Your task to perform on an android device: Add logitech g910 to the cart on ebay Image 0: 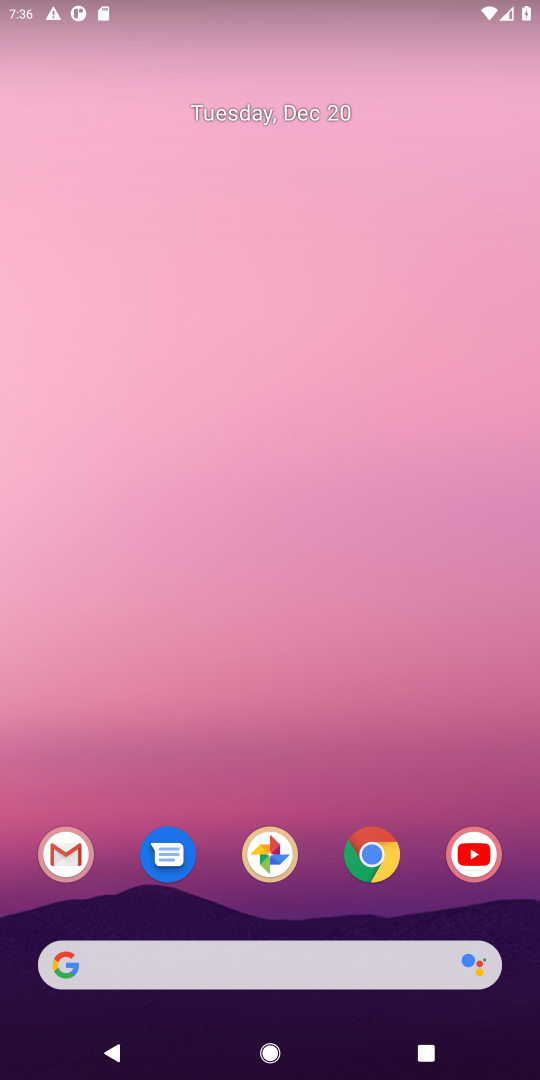
Step 0: click (376, 857)
Your task to perform on an android device: Add logitech g910 to the cart on ebay Image 1: 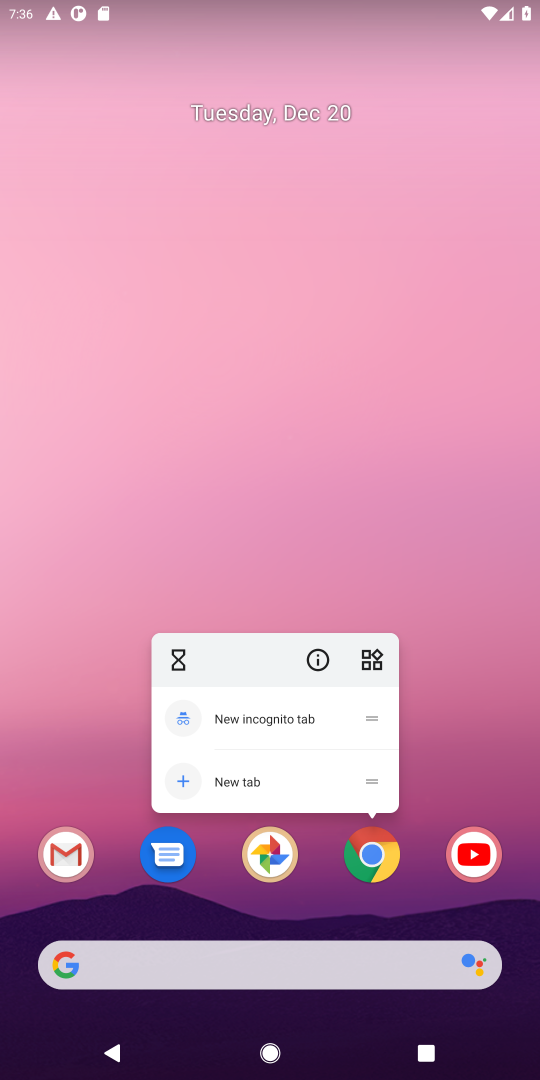
Step 1: click (373, 863)
Your task to perform on an android device: Add logitech g910 to the cart on ebay Image 2: 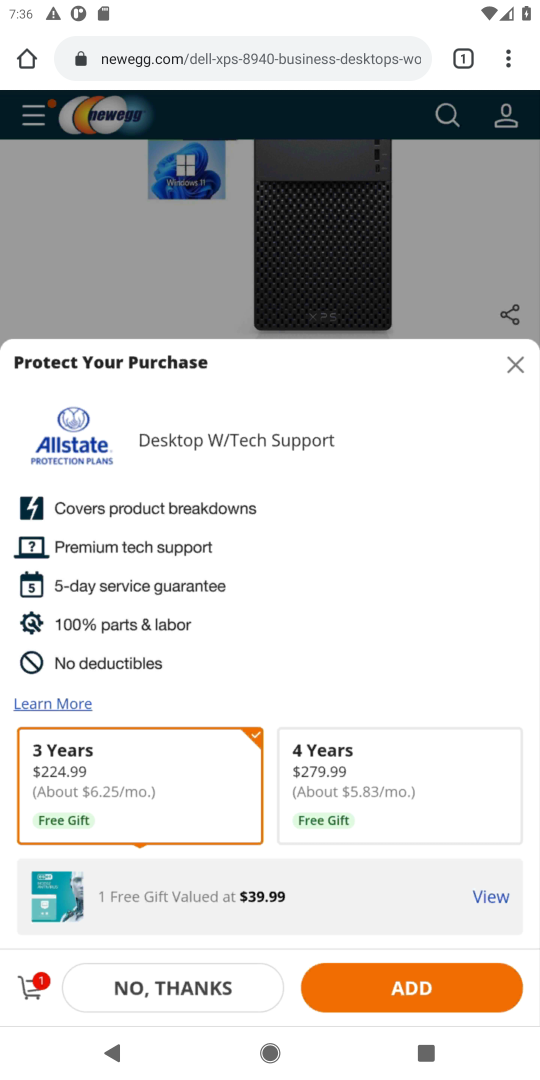
Step 2: click (205, 54)
Your task to perform on an android device: Add logitech g910 to the cart on ebay Image 3: 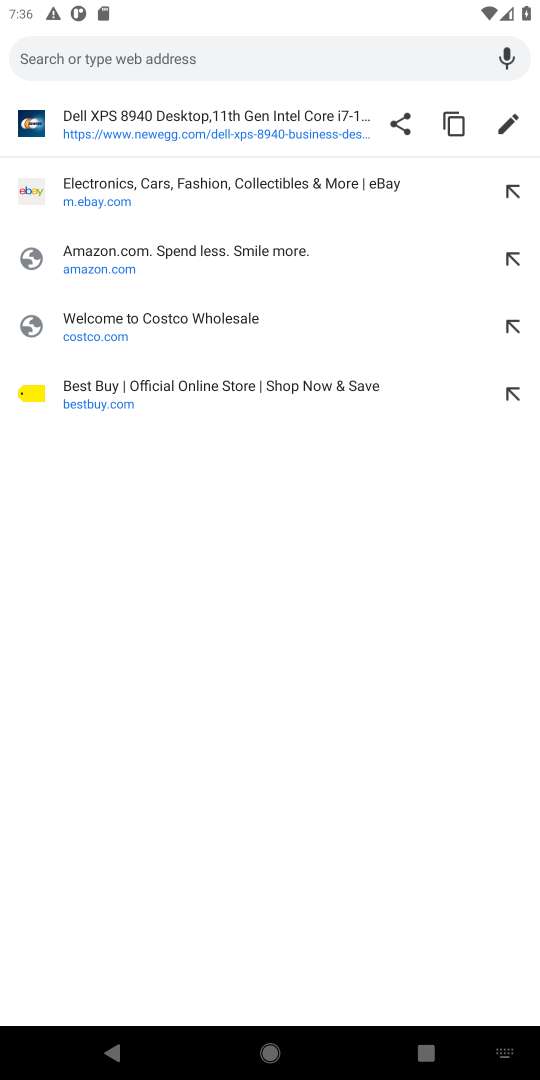
Step 3: click (72, 201)
Your task to perform on an android device: Add logitech g910 to the cart on ebay Image 4: 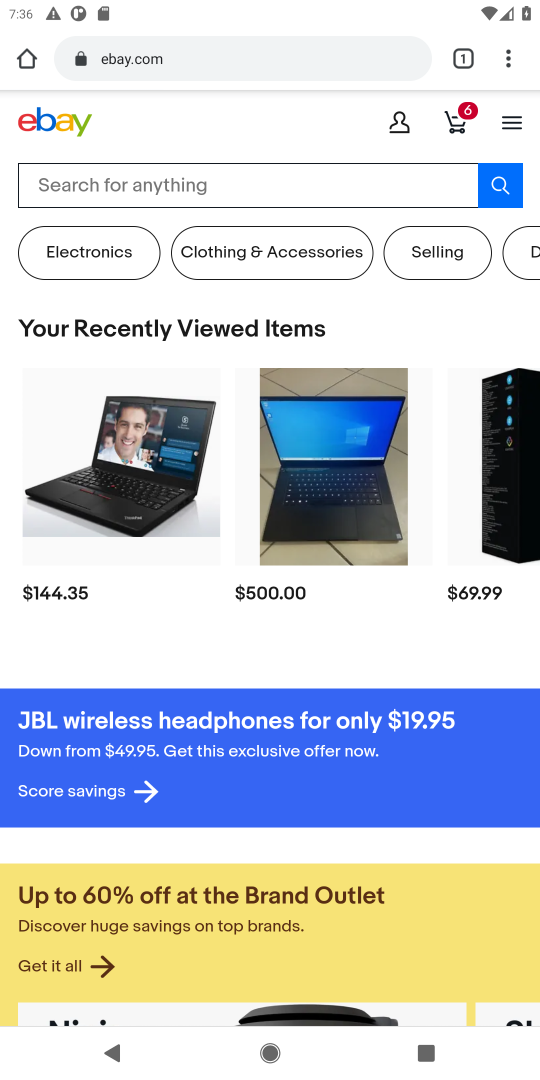
Step 4: click (71, 187)
Your task to perform on an android device: Add logitech g910 to the cart on ebay Image 5: 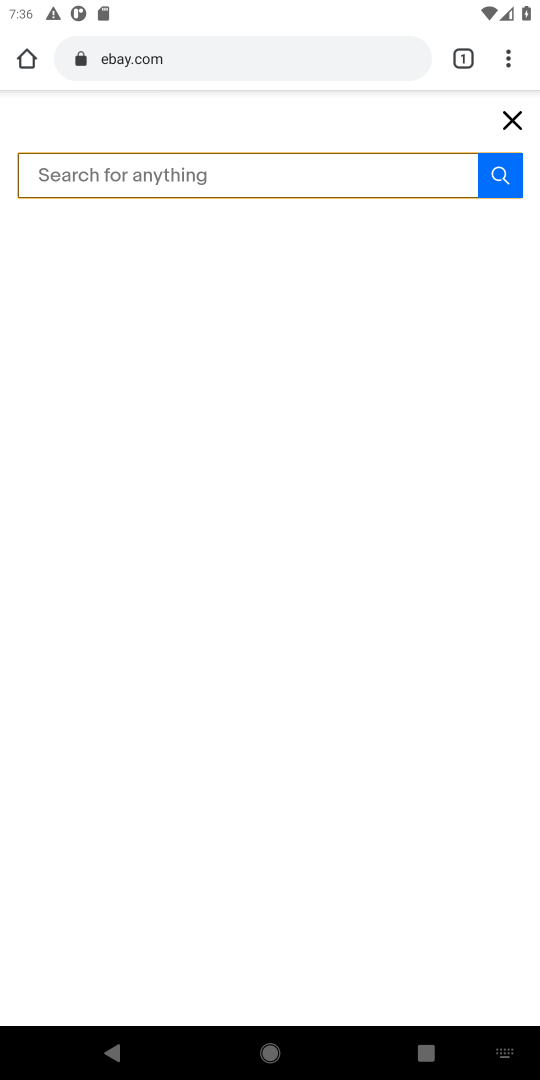
Step 5: type " logitech g910 "
Your task to perform on an android device: Add logitech g910 to the cart on ebay Image 6: 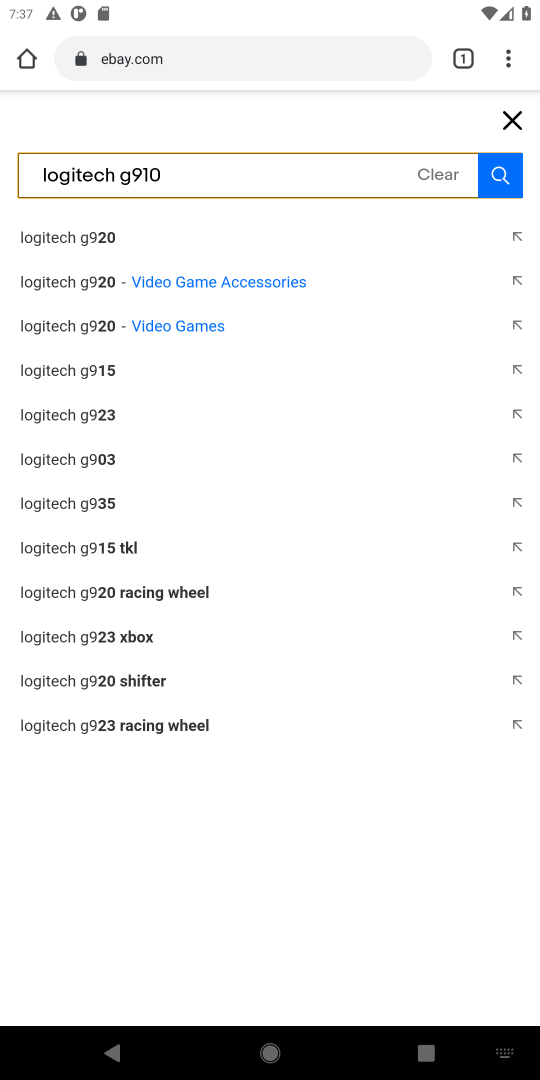
Step 6: click (500, 176)
Your task to perform on an android device: Add logitech g910 to the cart on ebay Image 7: 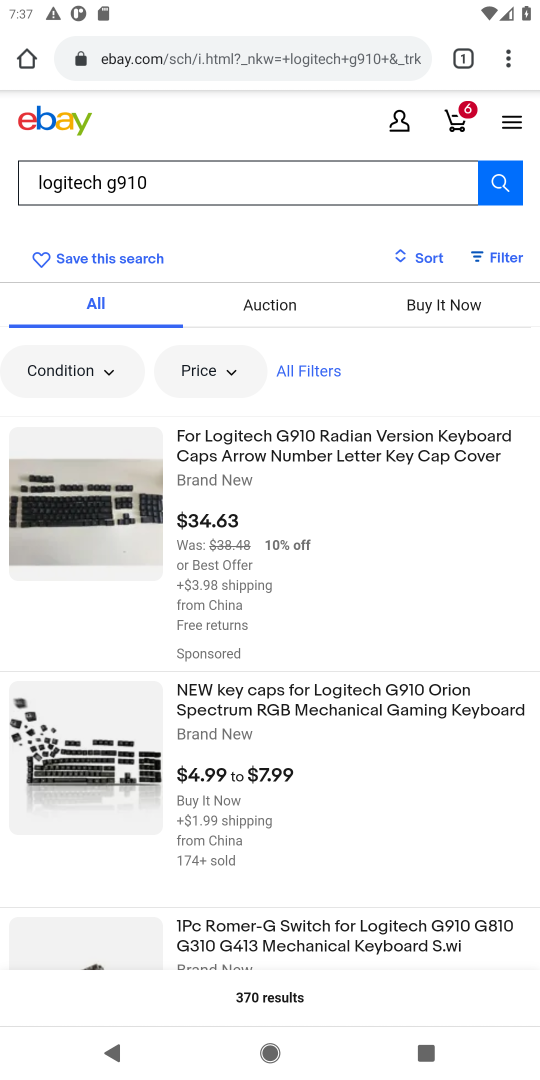
Step 7: click (222, 464)
Your task to perform on an android device: Add logitech g910 to the cart on ebay Image 8: 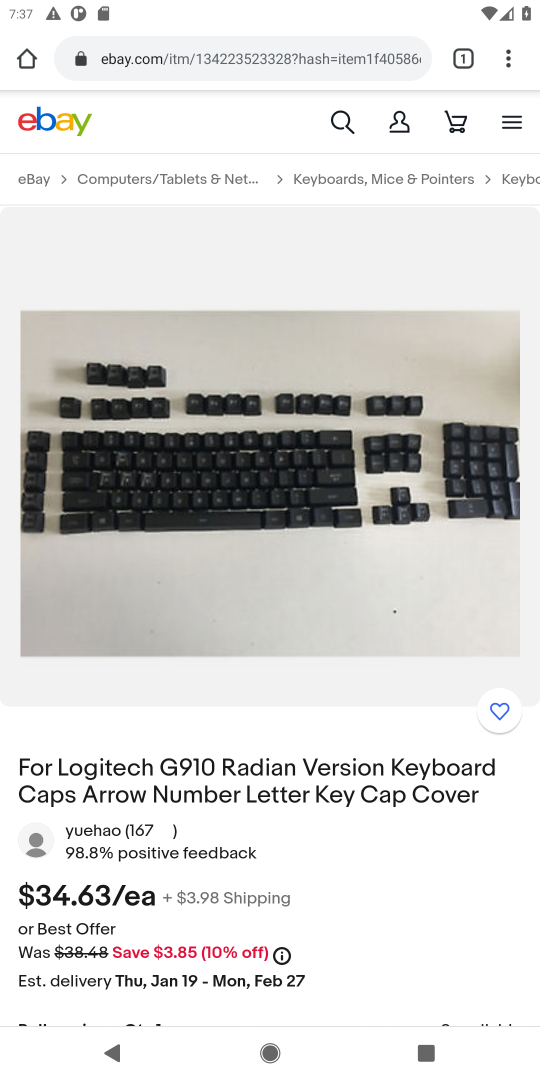
Step 8: drag from (273, 750) to (209, 372)
Your task to perform on an android device: Add logitech g910 to the cart on ebay Image 9: 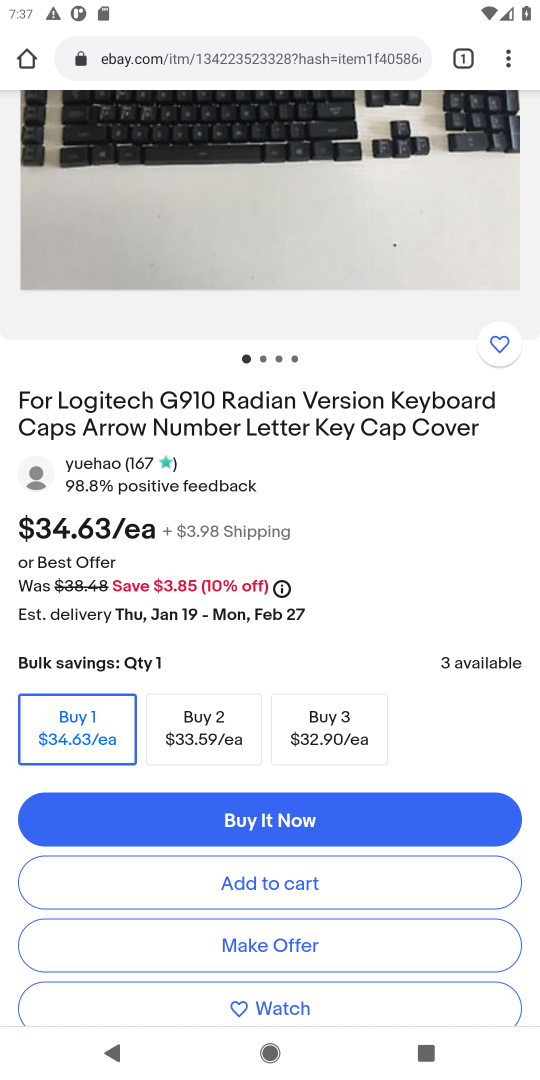
Step 9: click (225, 881)
Your task to perform on an android device: Add logitech g910 to the cart on ebay Image 10: 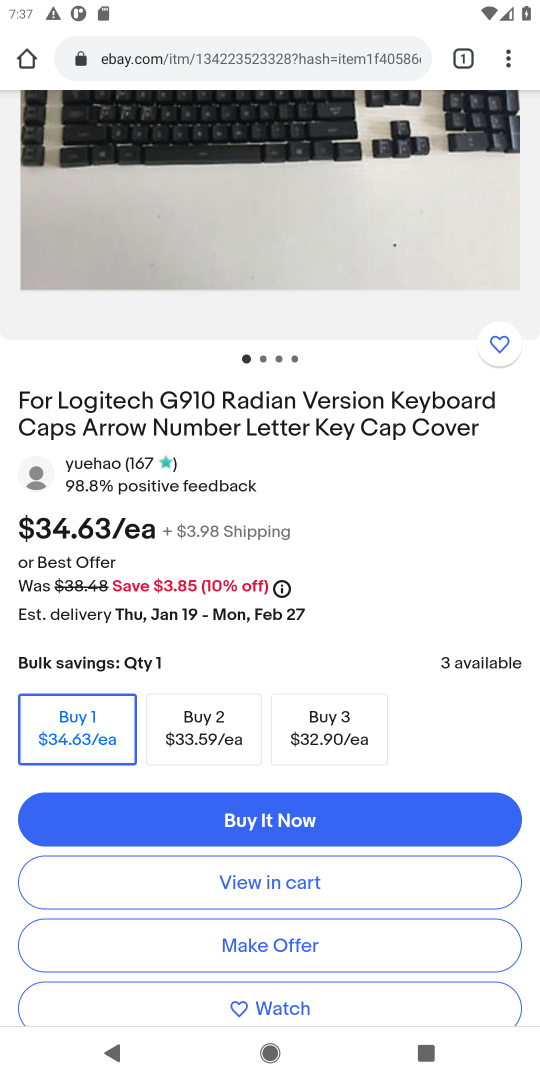
Step 10: task complete